Your task to perform on an android device: turn pop-ups on in chrome Image 0: 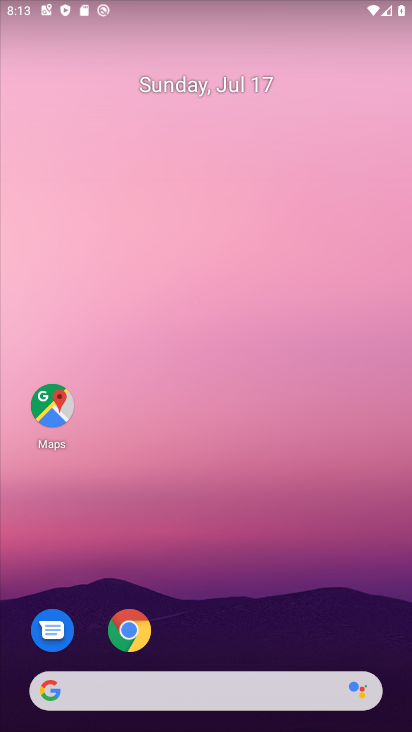
Step 0: click (129, 639)
Your task to perform on an android device: turn pop-ups on in chrome Image 1: 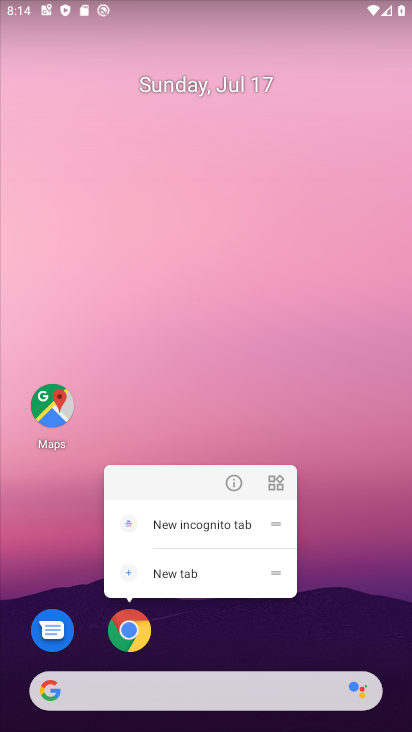
Step 1: click (126, 636)
Your task to perform on an android device: turn pop-ups on in chrome Image 2: 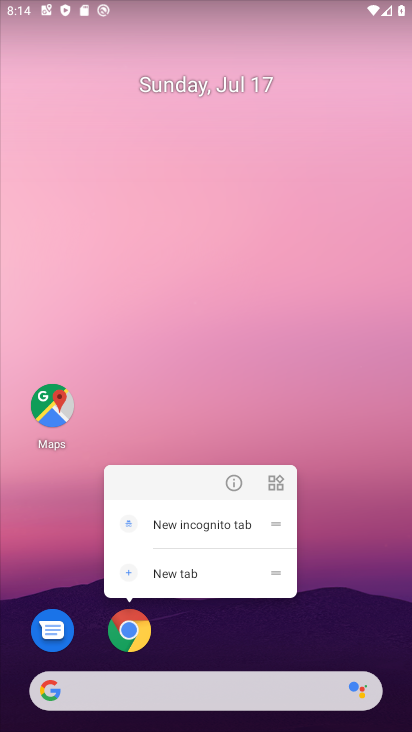
Step 2: click (126, 636)
Your task to perform on an android device: turn pop-ups on in chrome Image 3: 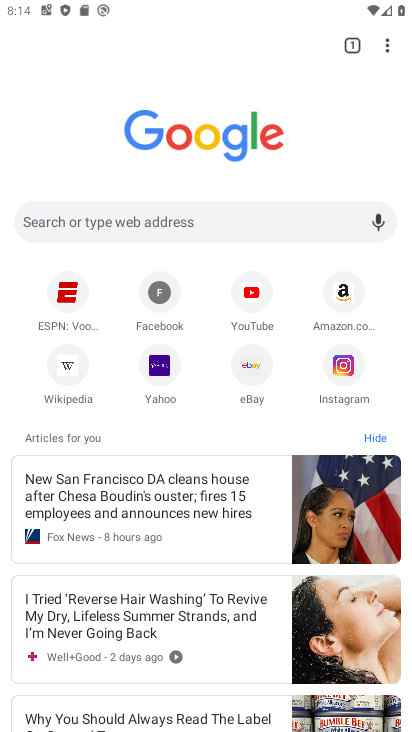
Step 3: click (386, 44)
Your task to perform on an android device: turn pop-ups on in chrome Image 4: 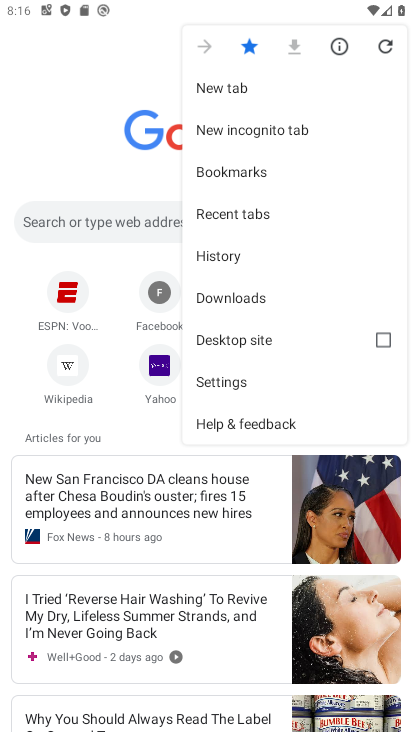
Step 4: click (245, 387)
Your task to perform on an android device: turn pop-ups on in chrome Image 5: 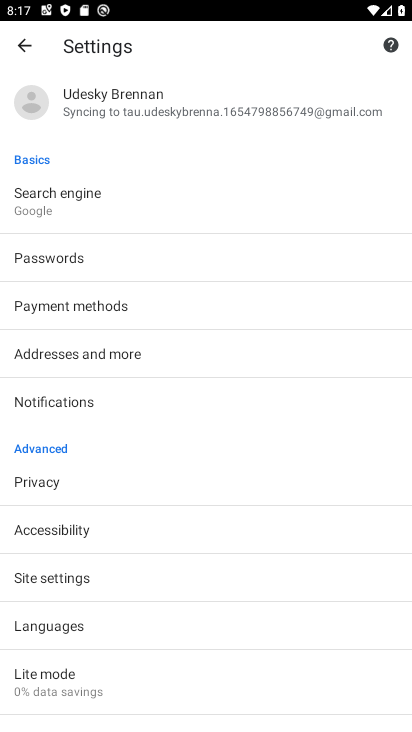
Step 5: click (55, 572)
Your task to perform on an android device: turn pop-ups on in chrome Image 6: 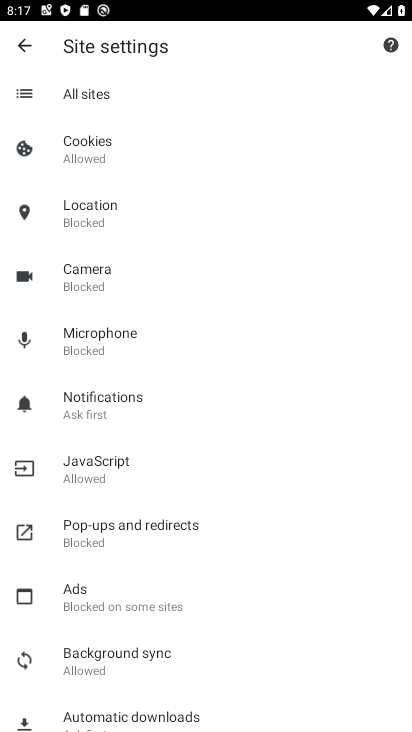
Step 6: click (189, 518)
Your task to perform on an android device: turn pop-ups on in chrome Image 7: 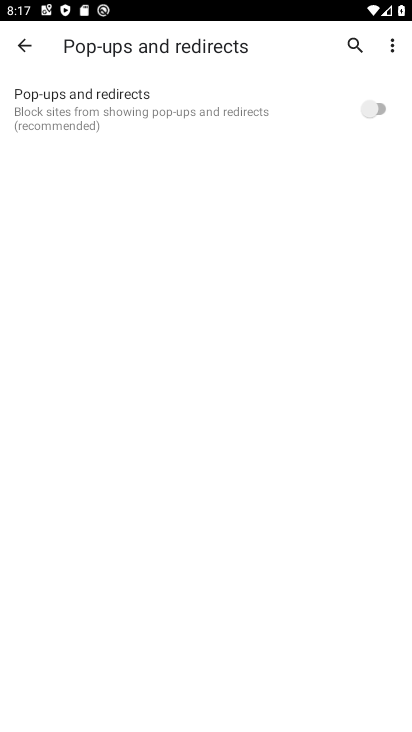
Step 7: click (384, 104)
Your task to perform on an android device: turn pop-ups on in chrome Image 8: 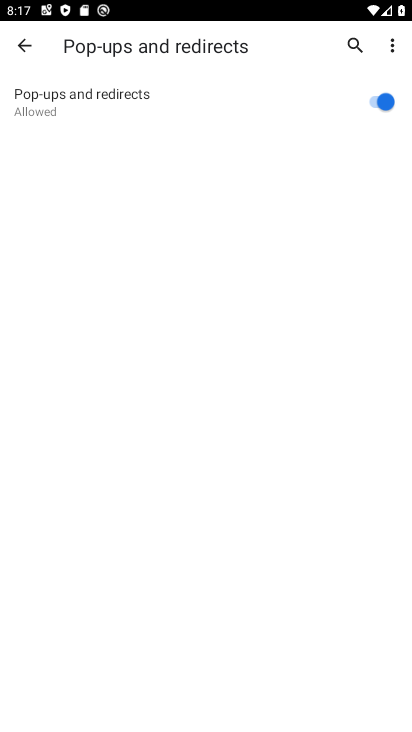
Step 8: task complete